Your task to perform on an android device: star an email in the gmail app Image 0: 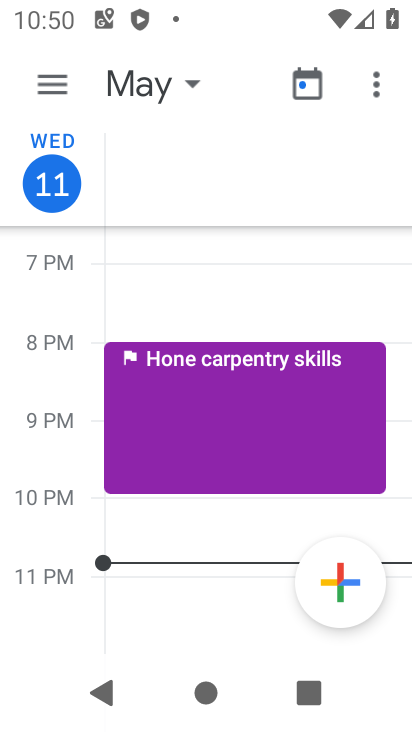
Step 0: click (128, 77)
Your task to perform on an android device: star an email in the gmail app Image 1: 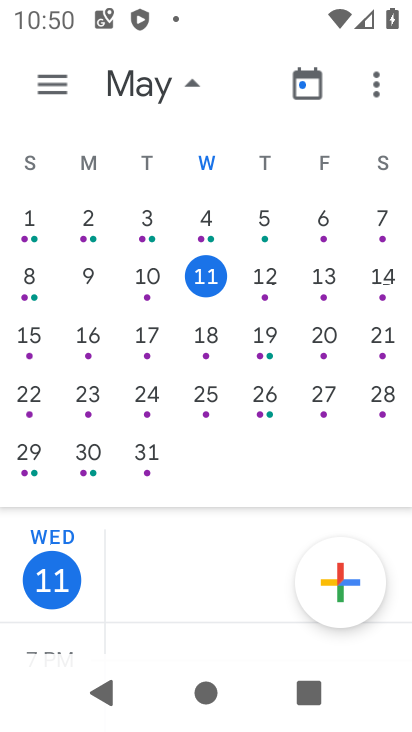
Step 1: press home button
Your task to perform on an android device: star an email in the gmail app Image 2: 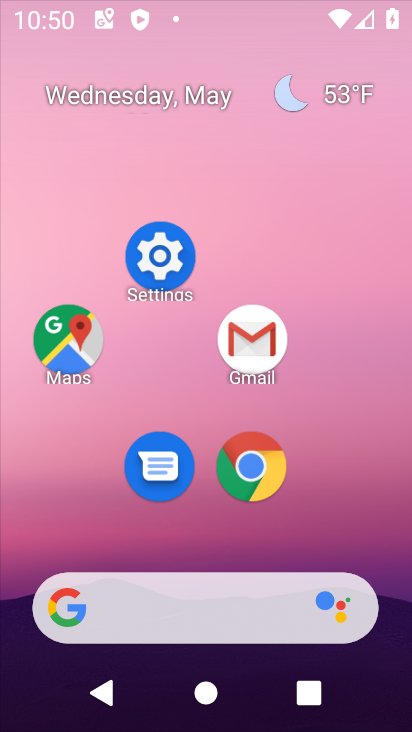
Step 2: drag from (205, 567) to (289, 162)
Your task to perform on an android device: star an email in the gmail app Image 3: 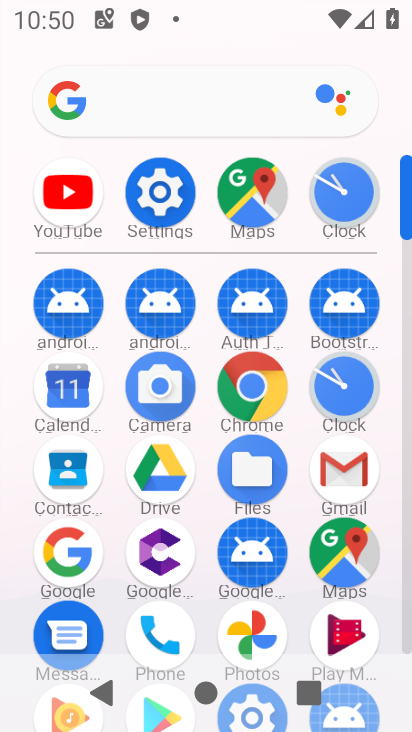
Step 3: click (338, 467)
Your task to perform on an android device: star an email in the gmail app Image 4: 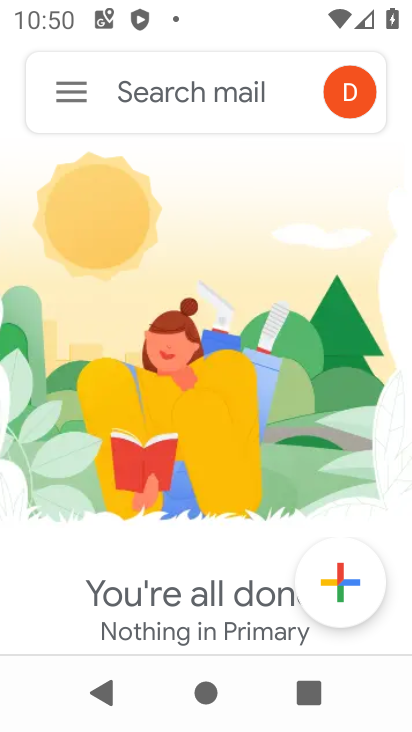
Step 4: task complete